Your task to perform on an android device: Search for Italian restaurants on Maps Image 0: 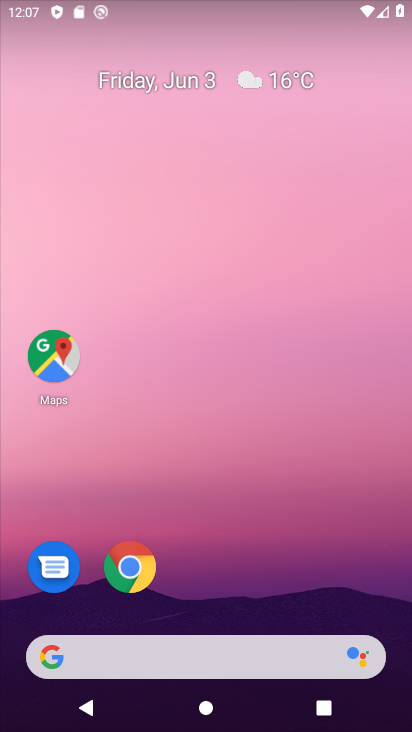
Step 0: click (64, 357)
Your task to perform on an android device: Search for Italian restaurants on Maps Image 1: 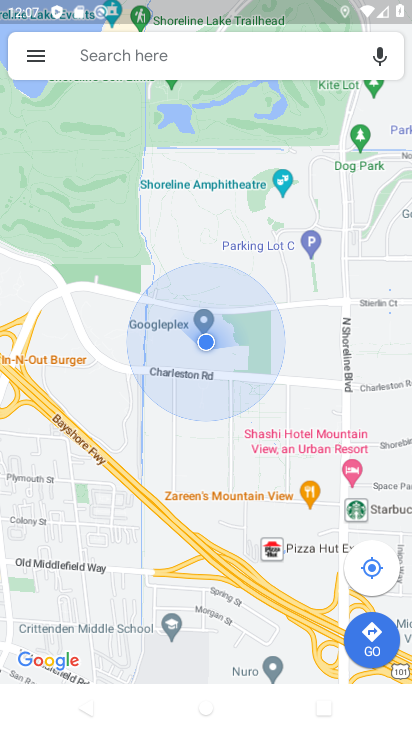
Step 1: click (34, 60)
Your task to perform on an android device: Search for Italian restaurants on Maps Image 2: 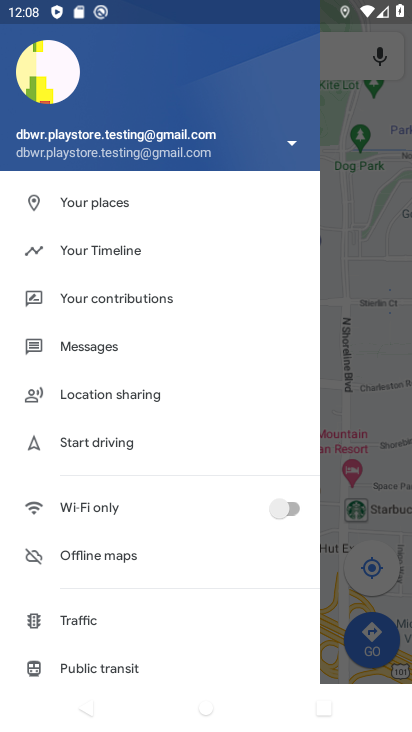
Step 2: click (393, 341)
Your task to perform on an android device: Search for Italian restaurants on Maps Image 3: 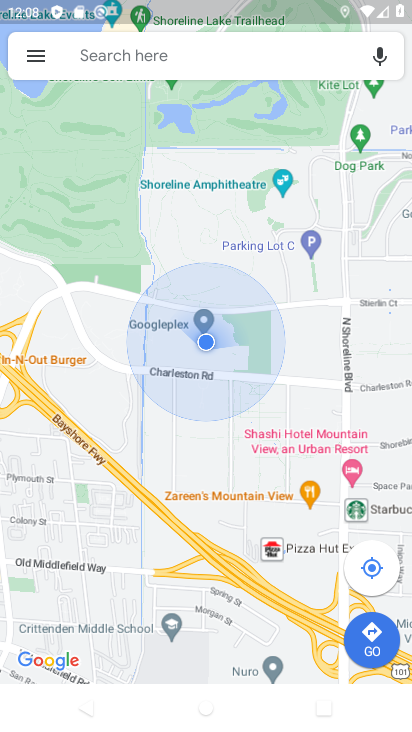
Step 3: click (262, 49)
Your task to perform on an android device: Search for Italian restaurants on Maps Image 4: 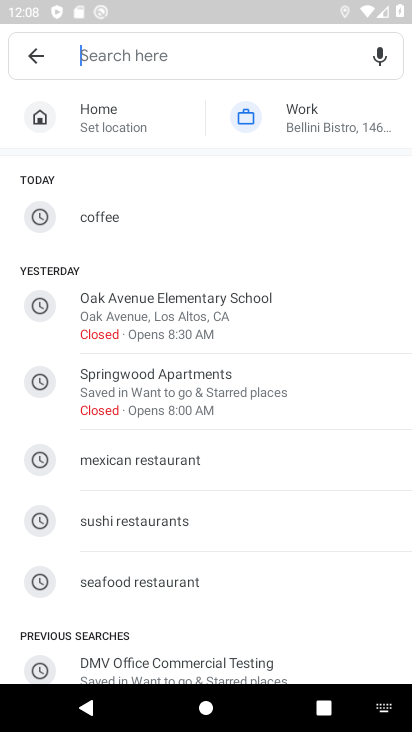
Step 4: type "italian"
Your task to perform on an android device: Search for Italian restaurants on Maps Image 5: 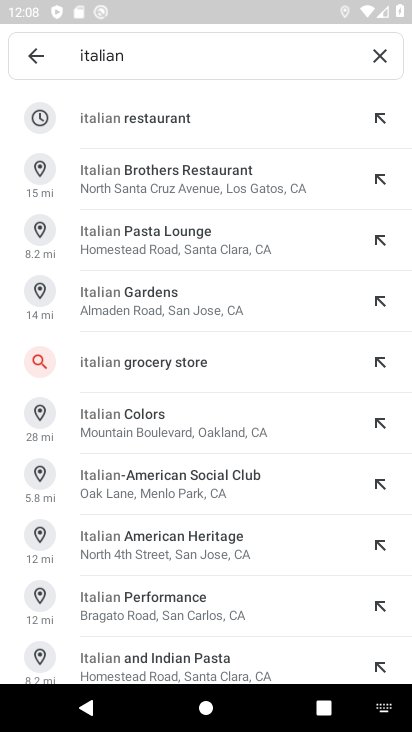
Step 5: click (209, 122)
Your task to perform on an android device: Search for Italian restaurants on Maps Image 6: 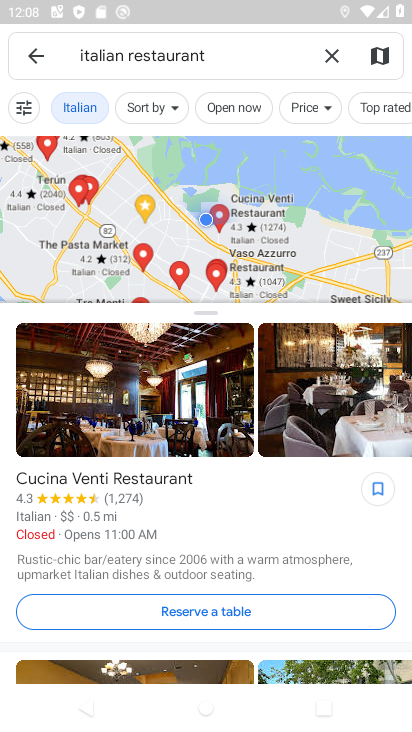
Step 6: task complete